Your task to perform on an android device: turn on data saver in the chrome app Image 0: 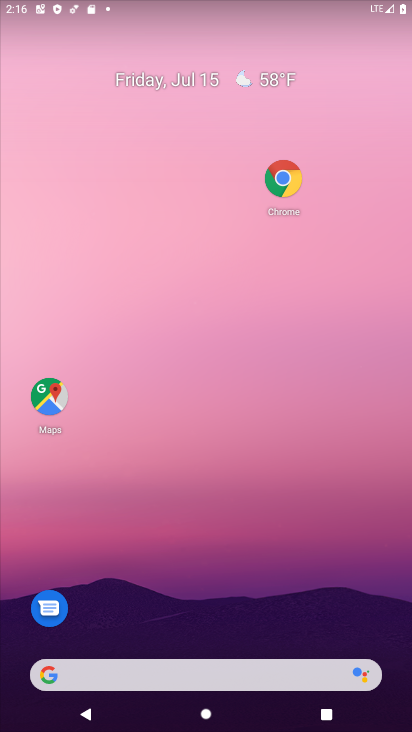
Step 0: drag from (200, 636) to (176, 77)
Your task to perform on an android device: turn on data saver in the chrome app Image 1: 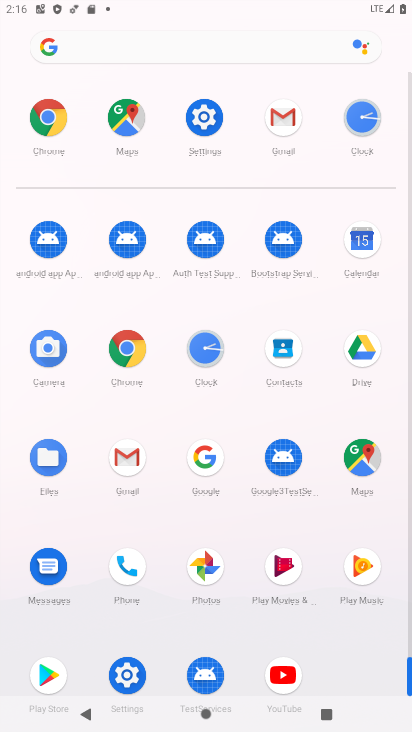
Step 1: click (127, 343)
Your task to perform on an android device: turn on data saver in the chrome app Image 2: 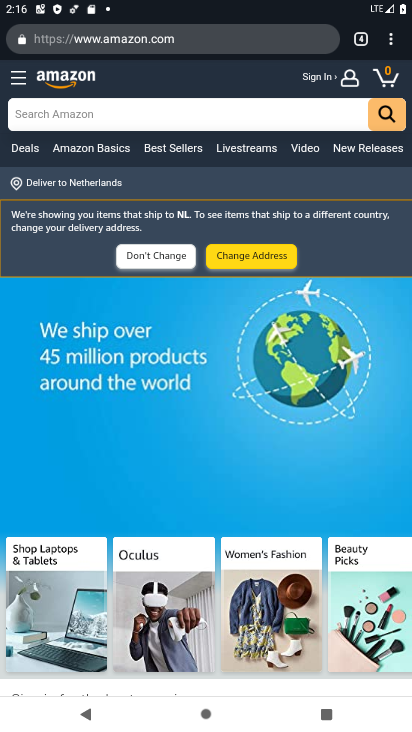
Step 2: drag from (396, 41) to (262, 467)
Your task to perform on an android device: turn on data saver in the chrome app Image 3: 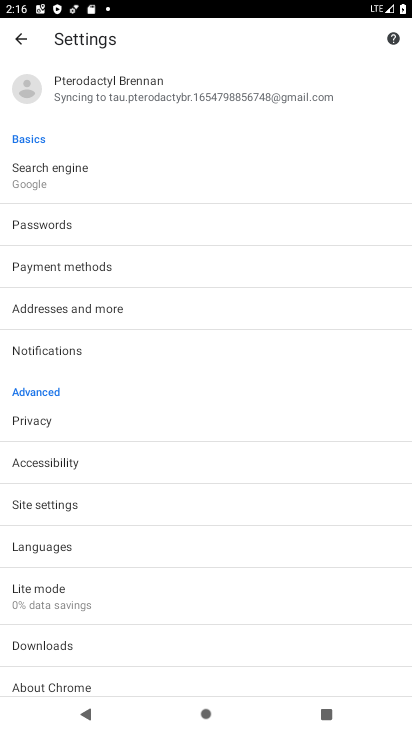
Step 3: click (88, 594)
Your task to perform on an android device: turn on data saver in the chrome app Image 4: 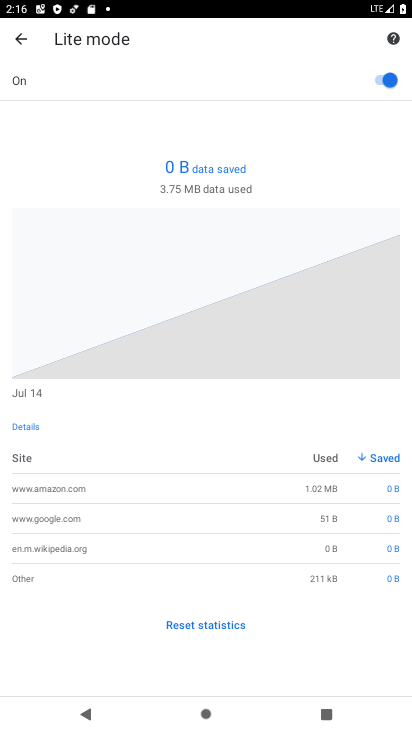
Step 4: task complete